Your task to perform on an android device: Go to sound settings Image 0: 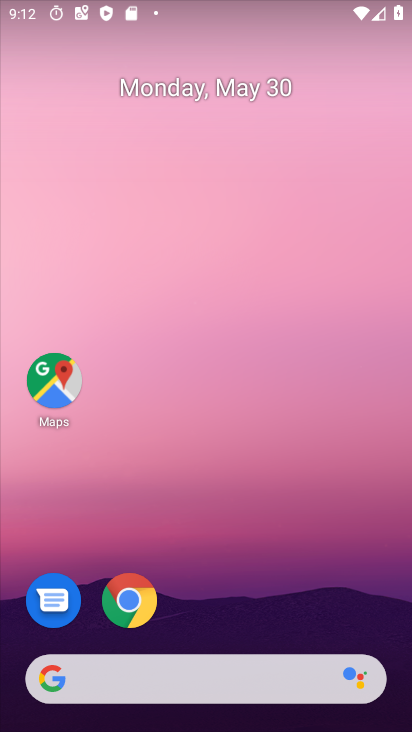
Step 0: drag from (264, 602) to (223, 40)
Your task to perform on an android device: Go to sound settings Image 1: 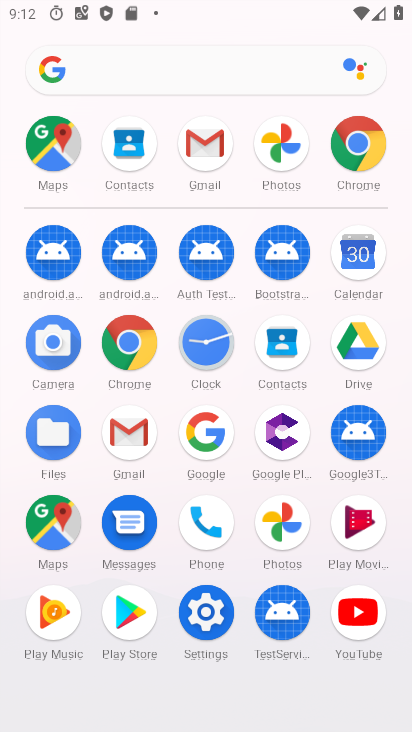
Step 1: drag from (14, 593) to (10, 304)
Your task to perform on an android device: Go to sound settings Image 2: 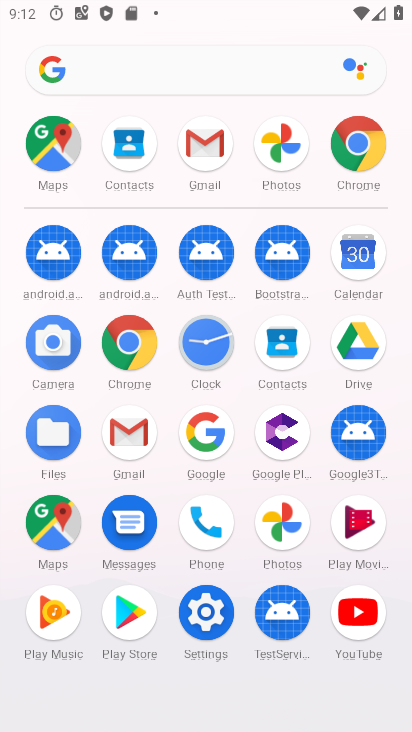
Step 2: click (207, 609)
Your task to perform on an android device: Go to sound settings Image 3: 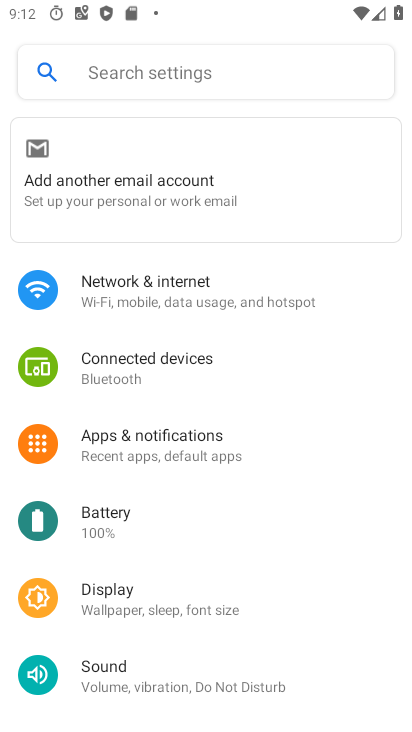
Step 3: drag from (247, 593) to (286, 289)
Your task to perform on an android device: Go to sound settings Image 4: 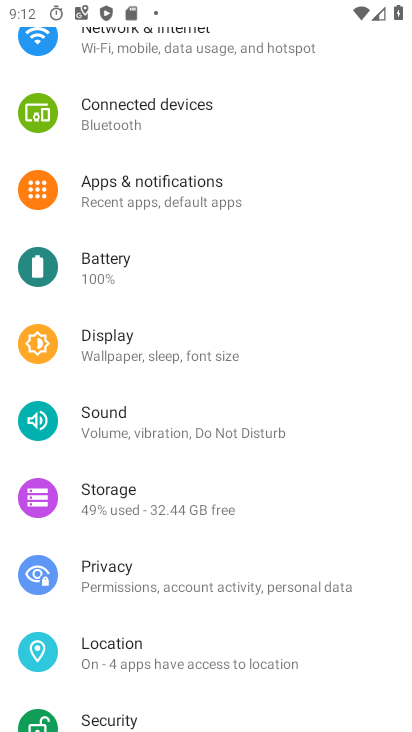
Step 4: click (105, 408)
Your task to perform on an android device: Go to sound settings Image 5: 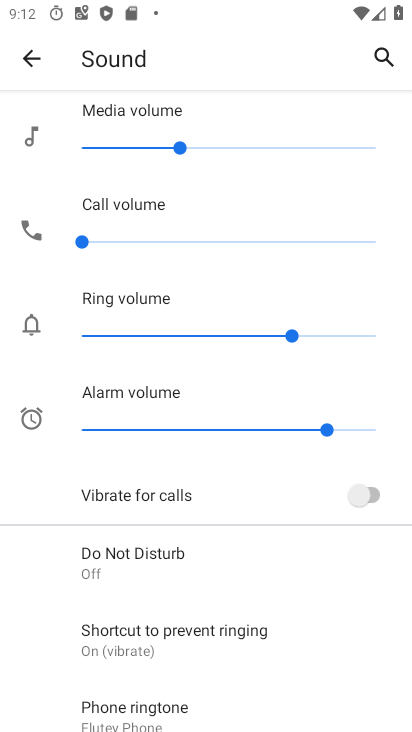
Step 5: drag from (224, 588) to (283, 169)
Your task to perform on an android device: Go to sound settings Image 6: 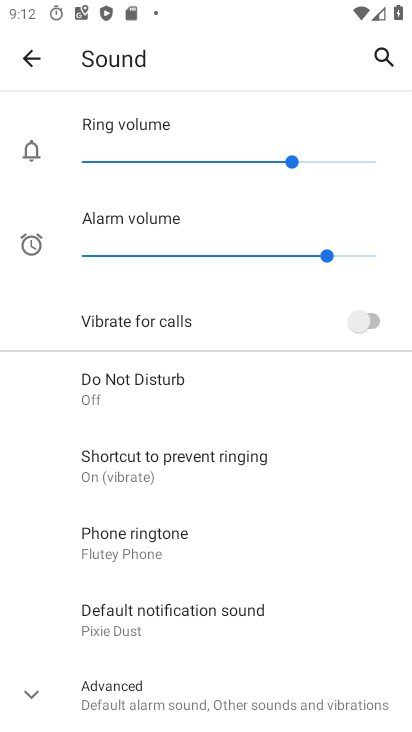
Step 6: click (34, 690)
Your task to perform on an android device: Go to sound settings Image 7: 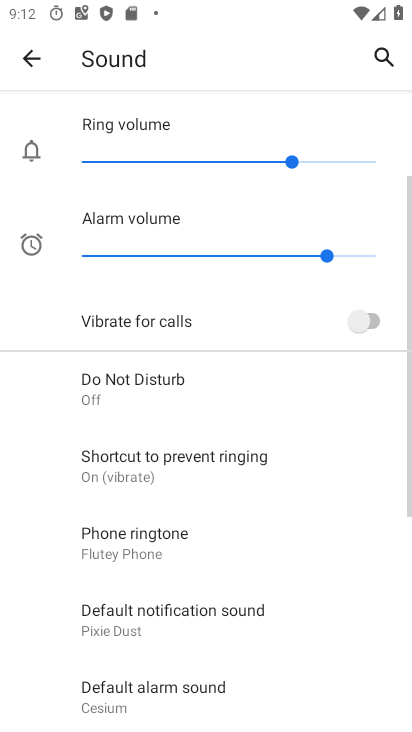
Step 7: task complete